Your task to perform on an android device: What's on my calendar today? Image 0: 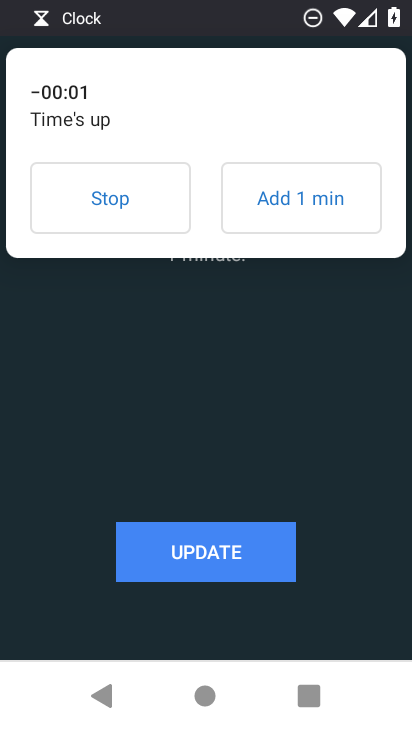
Step 0: press home button
Your task to perform on an android device: What's on my calendar today? Image 1: 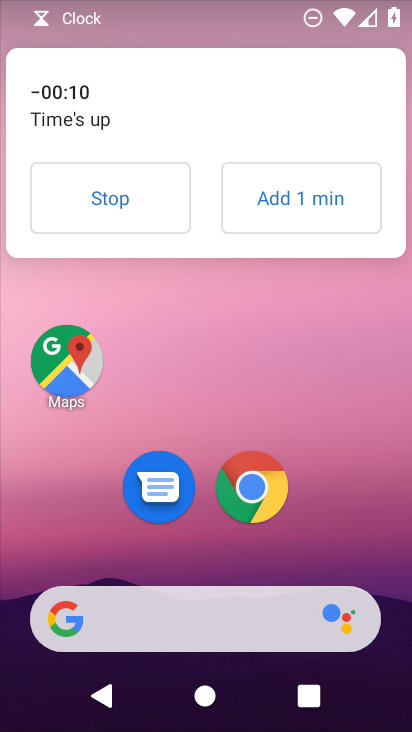
Step 1: click (145, 205)
Your task to perform on an android device: What's on my calendar today? Image 2: 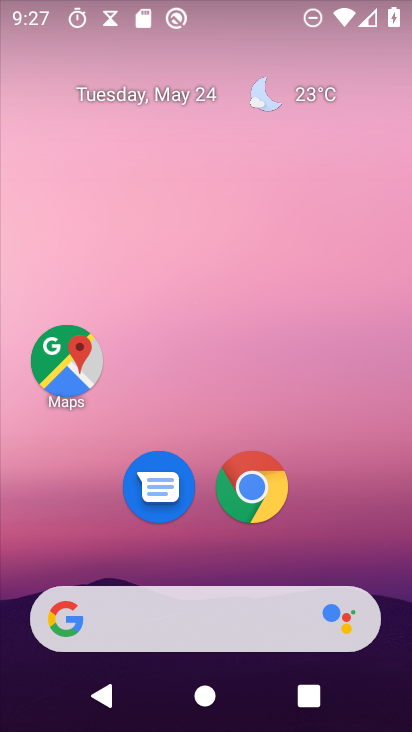
Step 2: drag from (20, 683) to (326, 122)
Your task to perform on an android device: What's on my calendar today? Image 3: 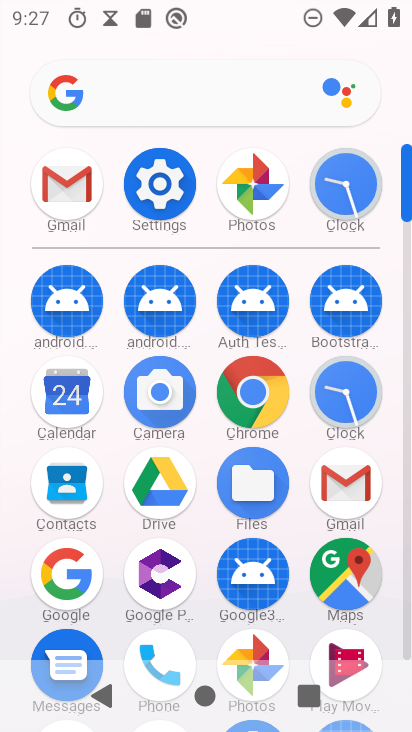
Step 3: click (57, 383)
Your task to perform on an android device: What's on my calendar today? Image 4: 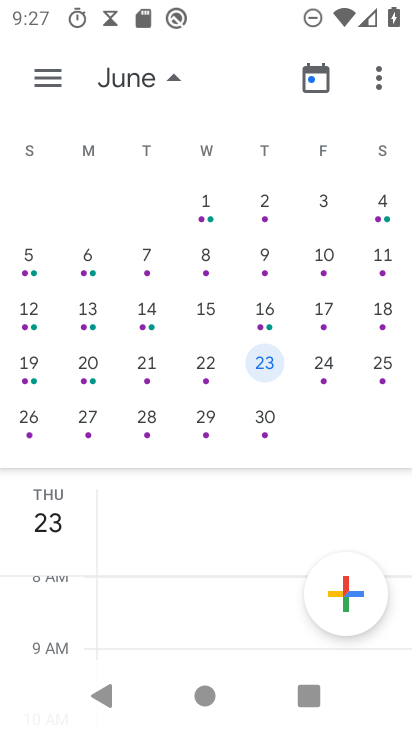
Step 4: drag from (32, 302) to (404, 292)
Your task to perform on an android device: What's on my calendar today? Image 5: 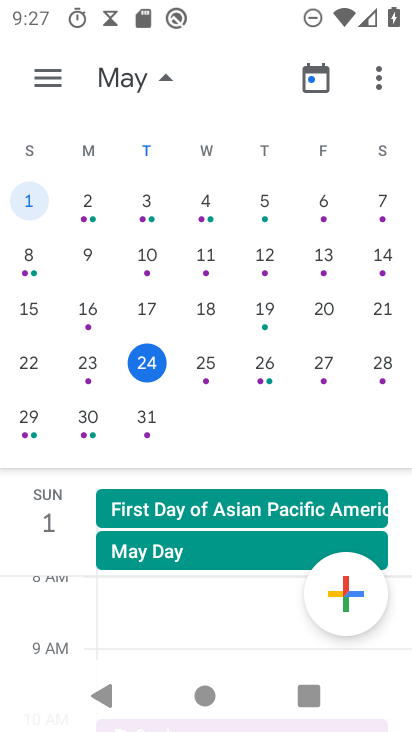
Step 5: click (142, 361)
Your task to perform on an android device: What's on my calendar today? Image 6: 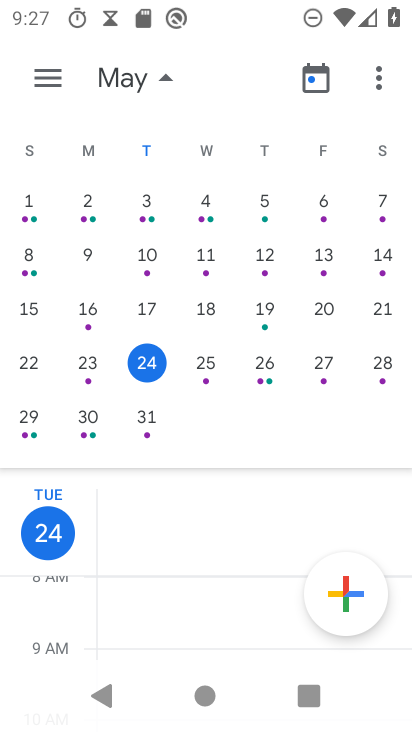
Step 6: task complete